Your task to perform on an android device: Set the phone to "Do not disturb". Image 0: 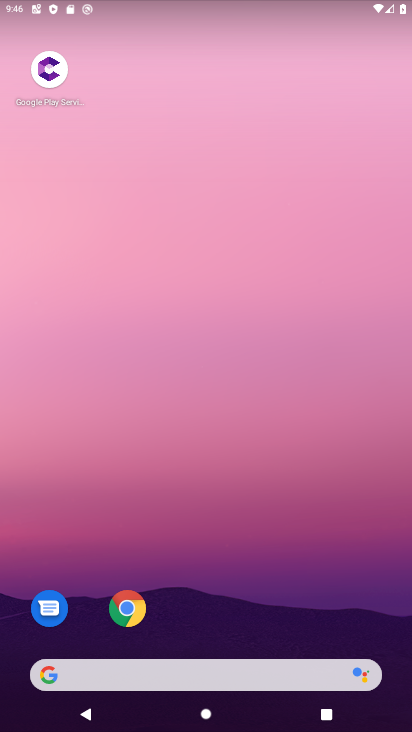
Step 0: drag from (223, 615) to (229, 52)
Your task to perform on an android device: Set the phone to "Do not disturb". Image 1: 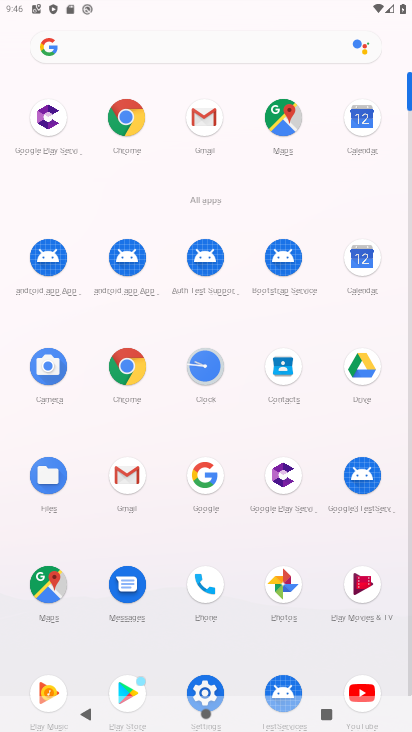
Step 1: click (202, 684)
Your task to perform on an android device: Set the phone to "Do not disturb". Image 2: 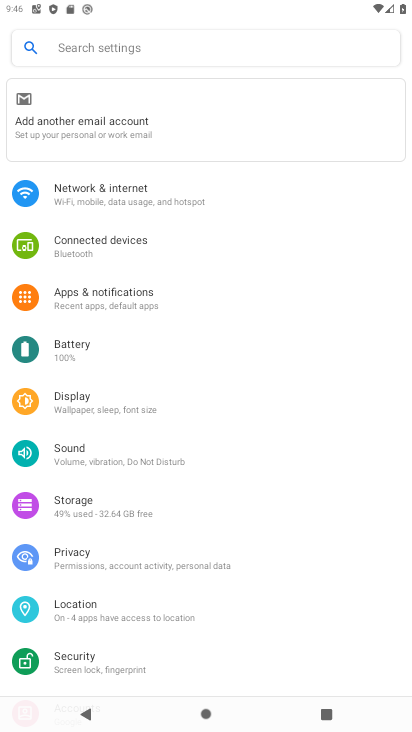
Step 2: click (146, 447)
Your task to perform on an android device: Set the phone to "Do not disturb". Image 3: 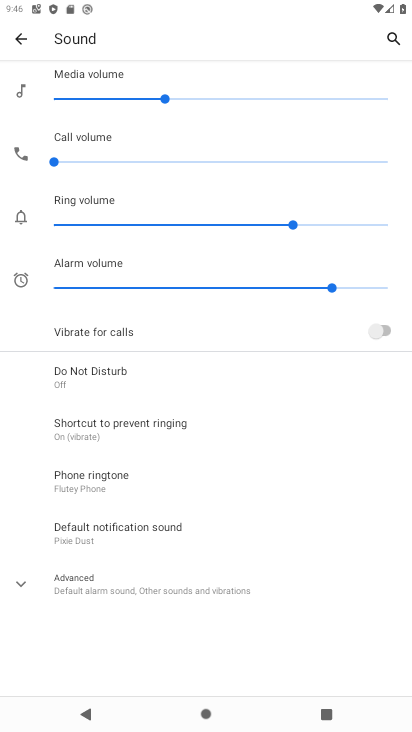
Step 3: click (131, 383)
Your task to perform on an android device: Set the phone to "Do not disturb". Image 4: 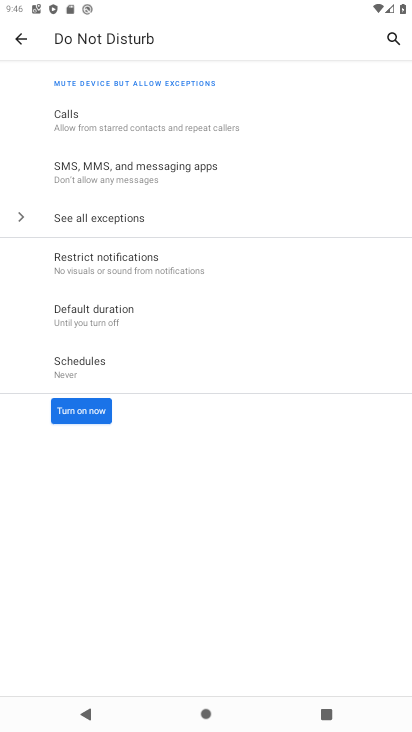
Step 4: click (90, 419)
Your task to perform on an android device: Set the phone to "Do not disturb". Image 5: 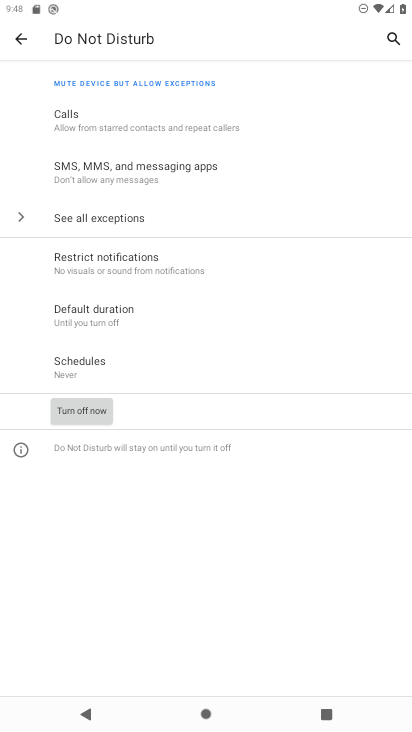
Step 5: task complete